Your task to perform on an android device: Turn off the flashlight Image 0: 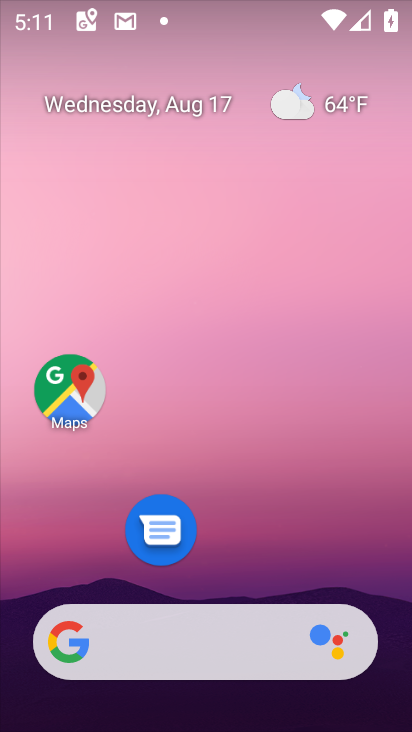
Step 0: drag from (201, 526) to (195, 103)
Your task to perform on an android device: Turn off the flashlight Image 1: 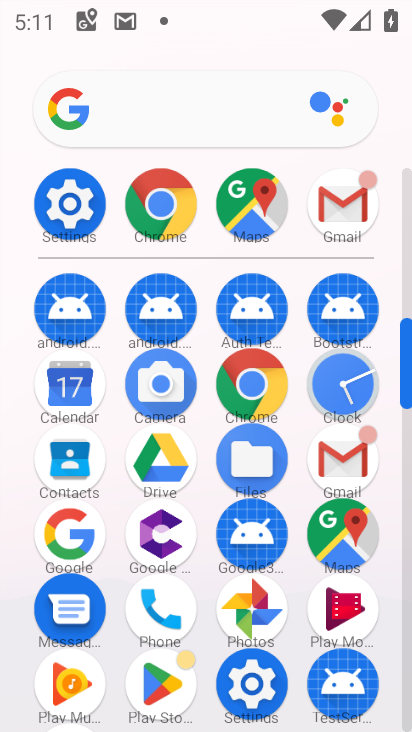
Step 1: click (65, 206)
Your task to perform on an android device: Turn off the flashlight Image 2: 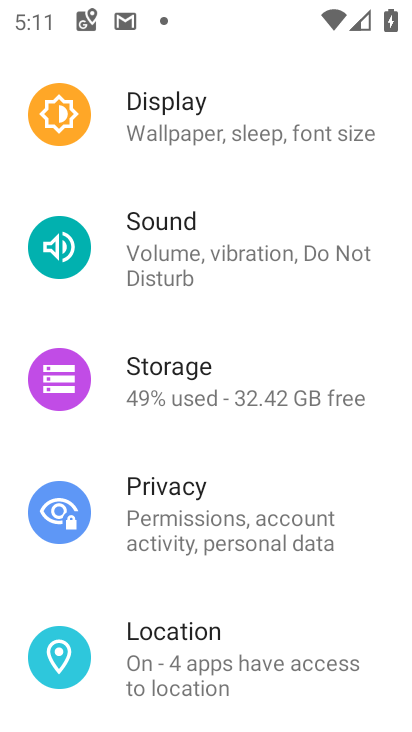
Step 2: task complete